Your task to perform on an android device: Check the weather Image 0: 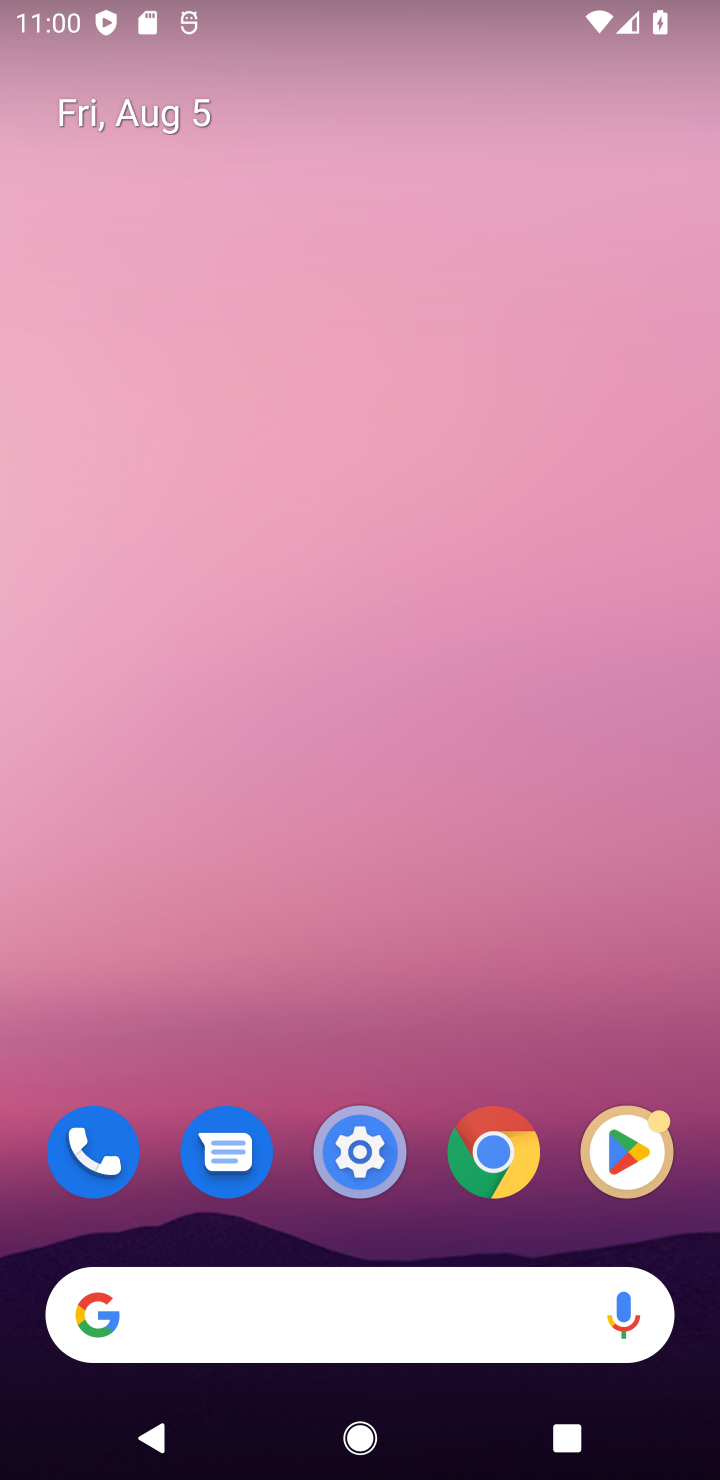
Step 0: click (72, 1321)
Your task to perform on an android device: Check the weather Image 1: 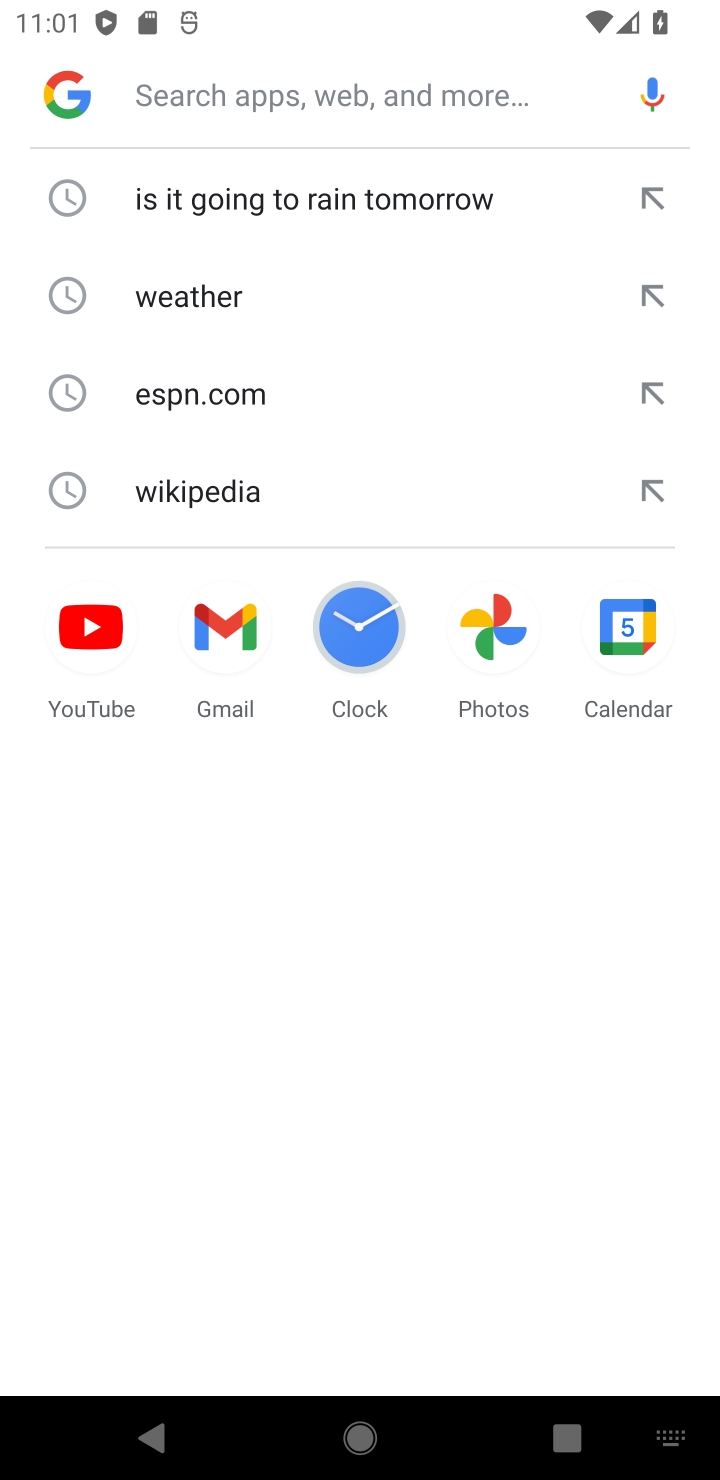
Step 1: click (157, 285)
Your task to perform on an android device: Check the weather Image 2: 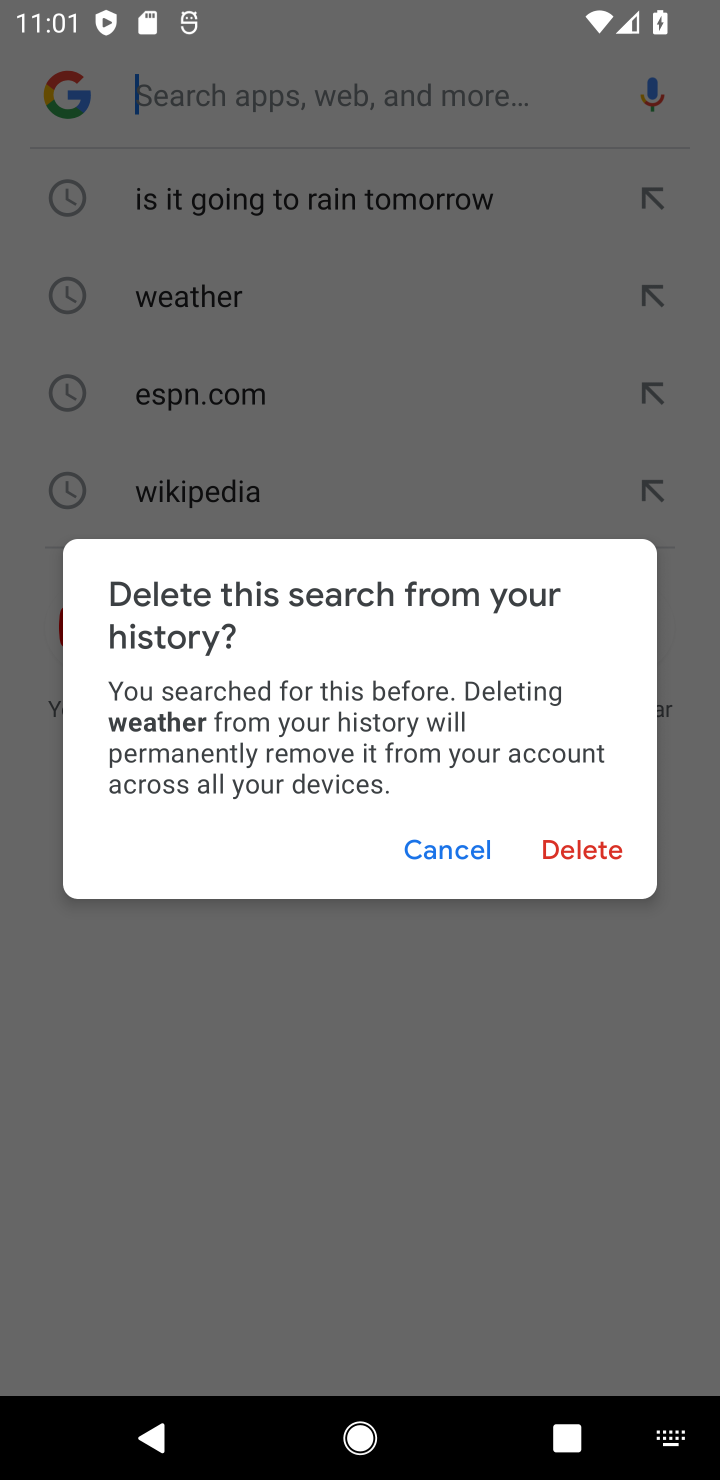
Step 2: click (467, 847)
Your task to perform on an android device: Check the weather Image 3: 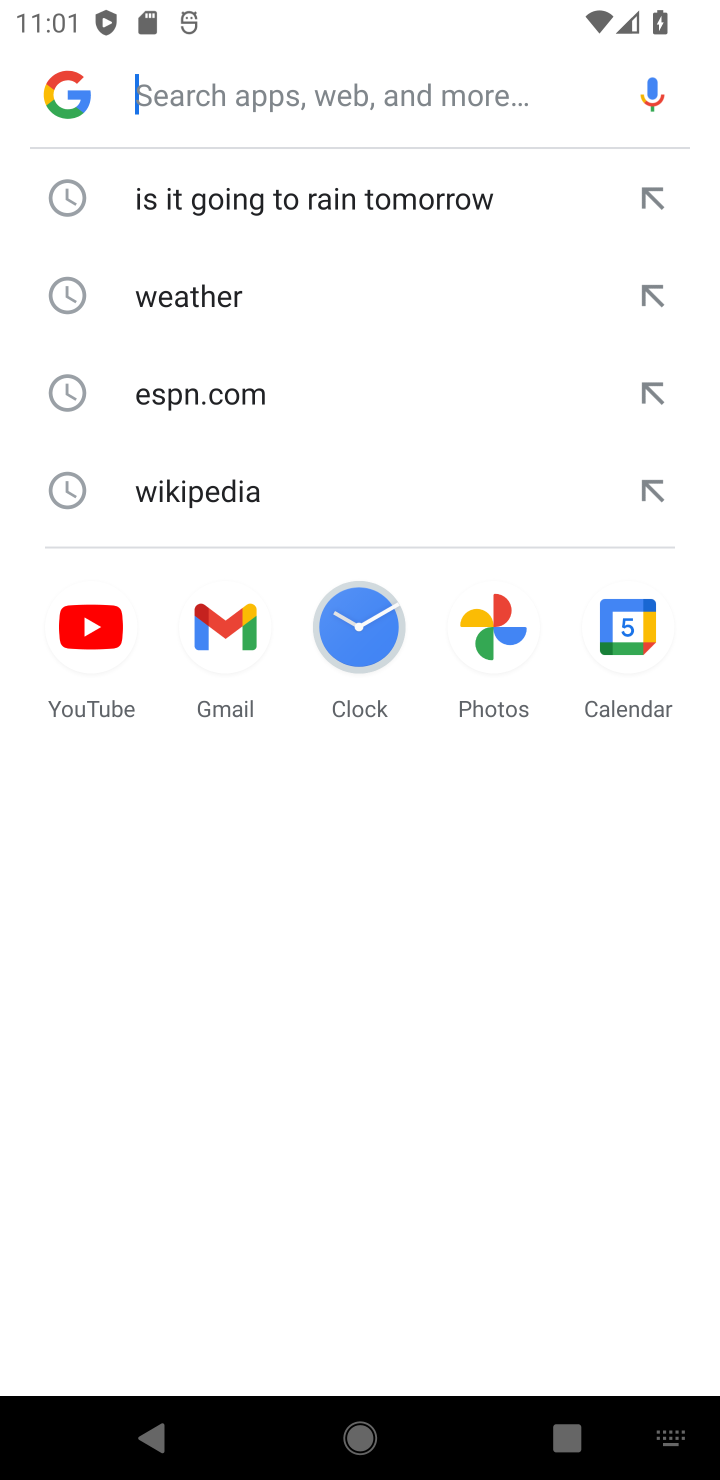
Step 3: click (200, 298)
Your task to perform on an android device: Check the weather Image 4: 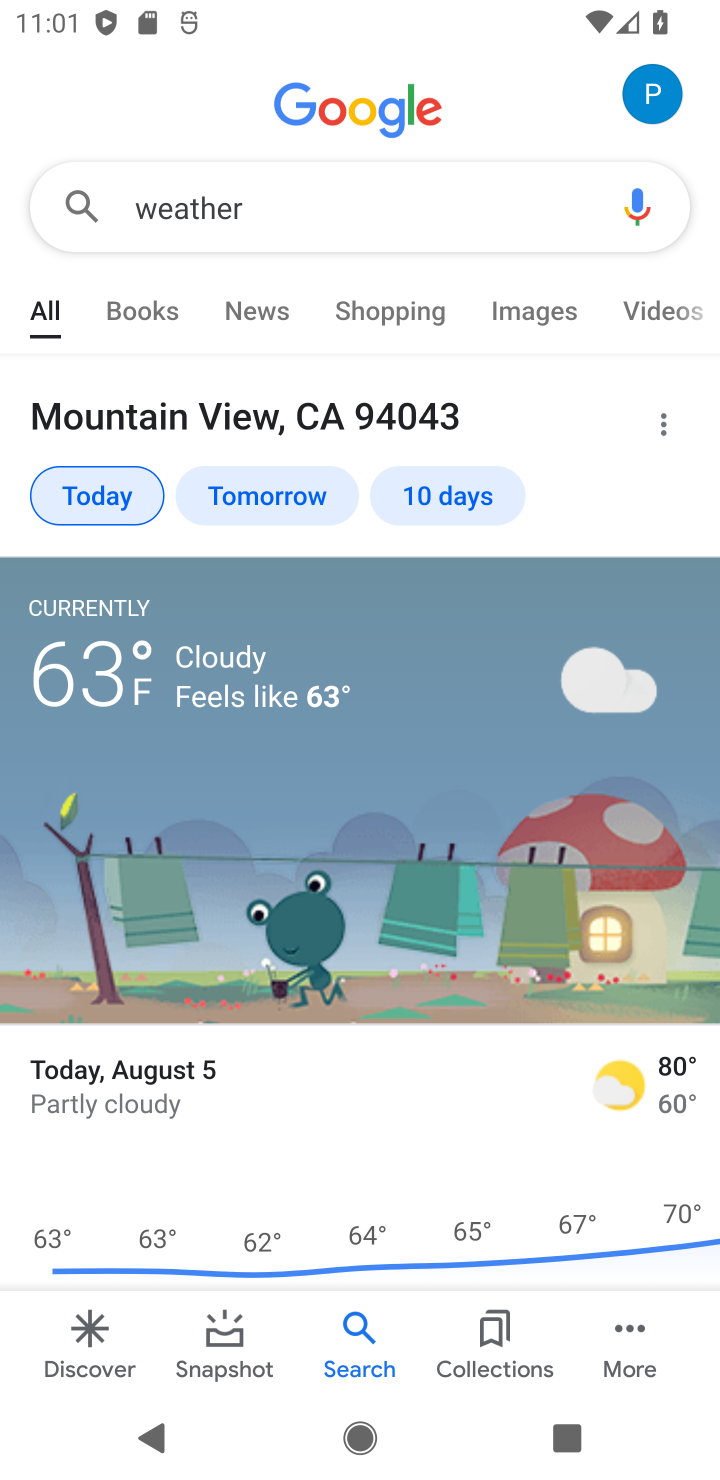
Step 4: task complete